Your task to perform on an android device: Open Google Chrome and open the bookmarks view Image 0: 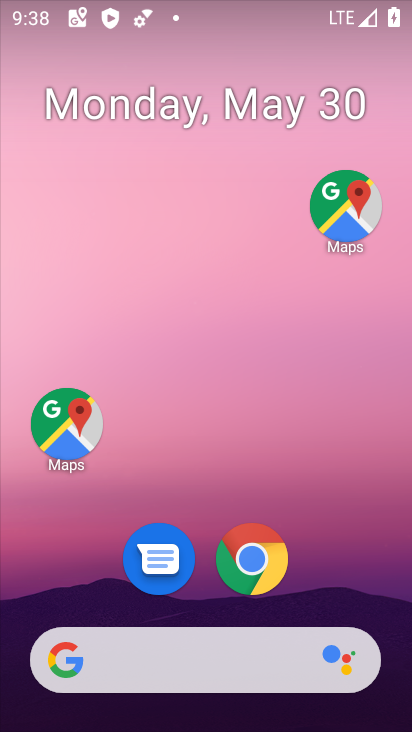
Step 0: click (253, 555)
Your task to perform on an android device: Open Google Chrome and open the bookmarks view Image 1: 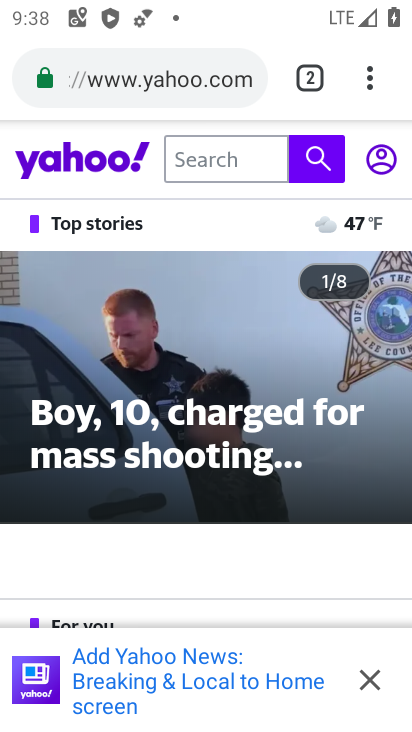
Step 1: task complete